Your task to perform on an android device: What is the recent news? Image 0: 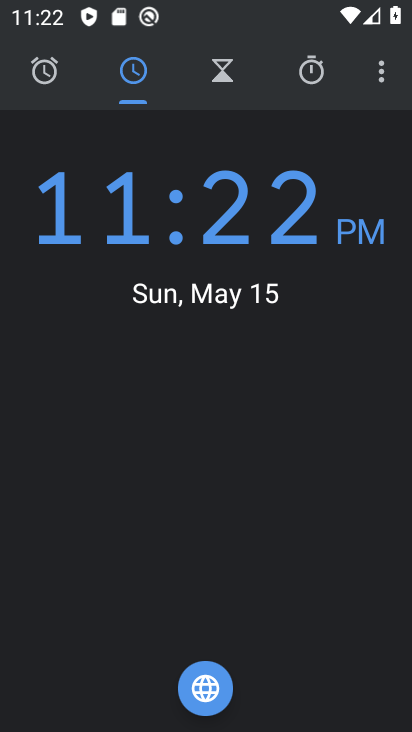
Step 0: press home button
Your task to perform on an android device: What is the recent news? Image 1: 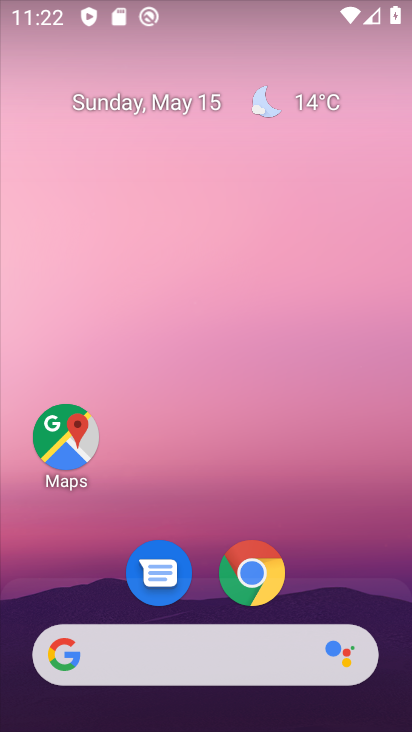
Step 1: click (265, 577)
Your task to perform on an android device: What is the recent news? Image 2: 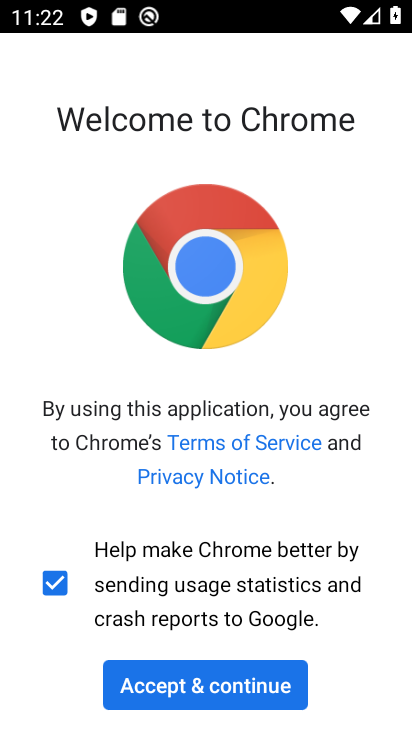
Step 2: click (222, 696)
Your task to perform on an android device: What is the recent news? Image 3: 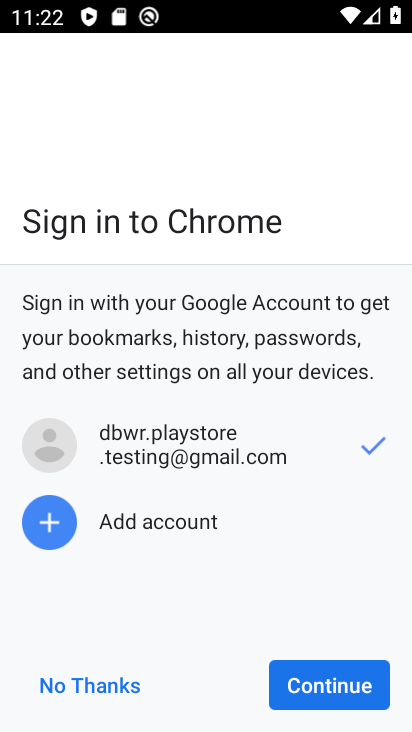
Step 3: click (354, 675)
Your task to perform on an android device: What is the recent news? Image 4: 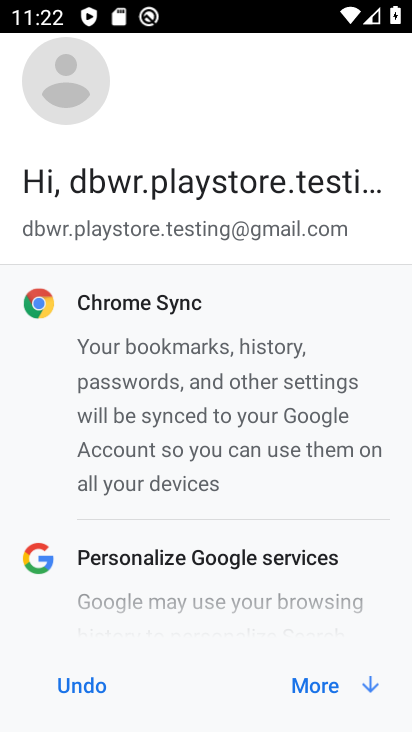
Step 4: click (354, 675)
Your task to perform on an android device: What is the recent news? Image 5: 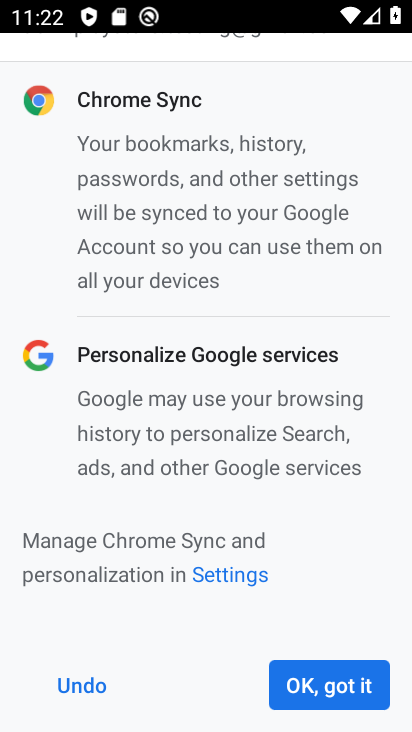
Step 5: click (354, 675)
Your task to perform on an android device: What is the recent news? Image 6: 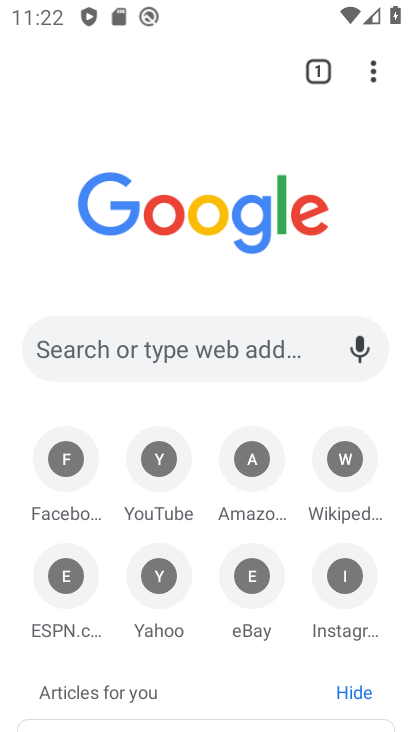
Step 6: task complete